Your task to perform on an android device: change keyboard looks Image 0: 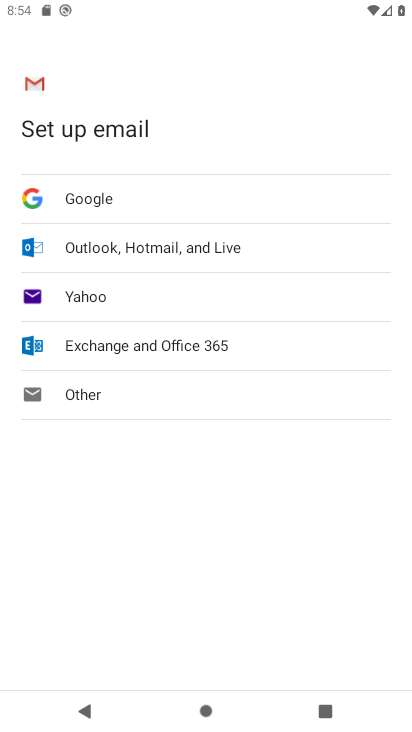
Step 0: press home button
Your task to perform on an android device: change keyboard looks Image 1: 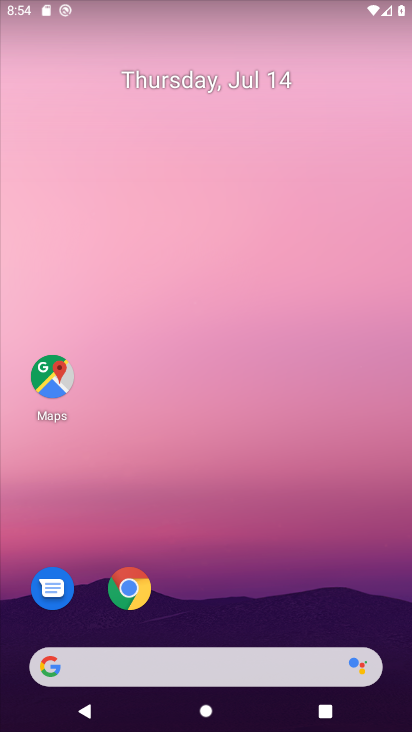
Step 1: drag from (274, 601) to (257, 76)
Your task to perform on an android device: change keyboard looks Image 2: 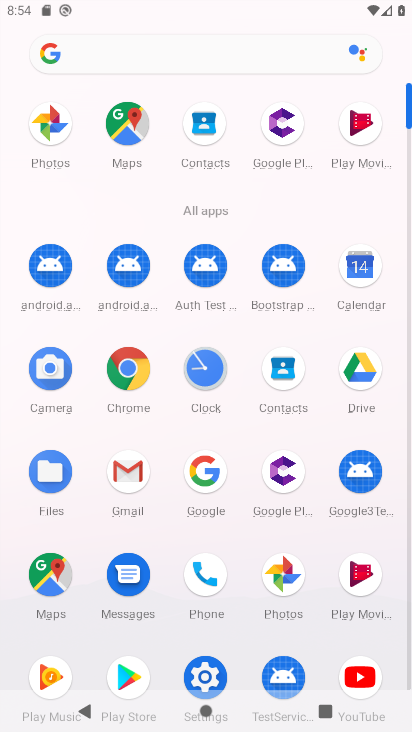
Step 2: click (209, 674)
Your task to perform on an android device: change keyboard looks Image 3: 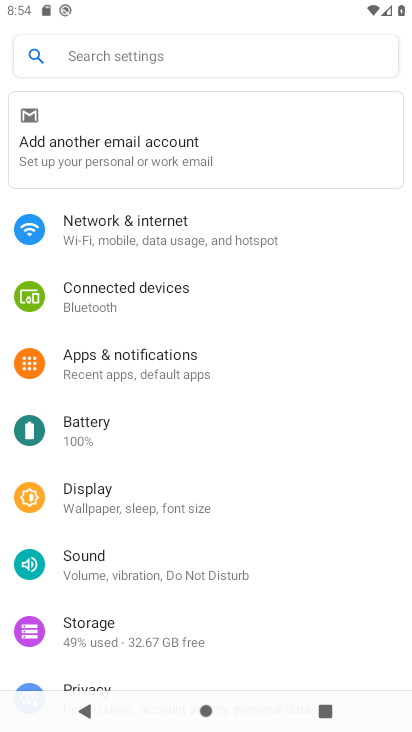
Step 3: drag from (244, 585) to (247, 253)
Your task to perform on an android device: change keyboard looks Image 4: 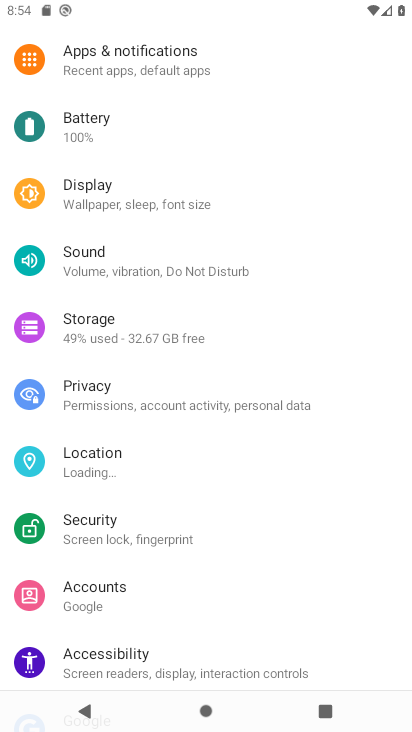
Step 4: drag from (153, 560) to (174, 200)
Your task to perform on an android device: change keyboard looks Image 5: 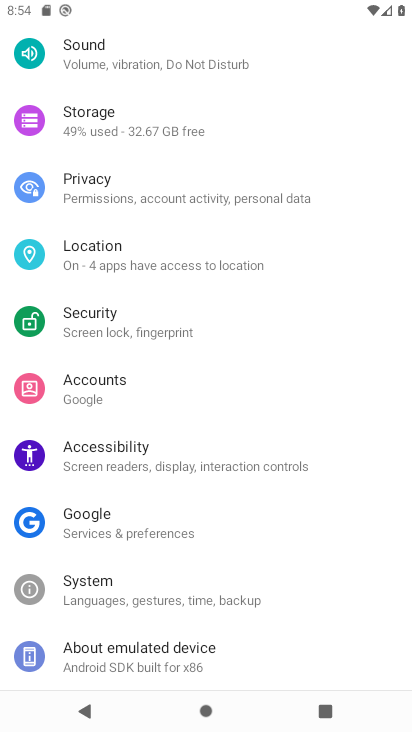
Step 5: click (68, 588)
Your task to perform on an android device: change keyboard looks Image 6: 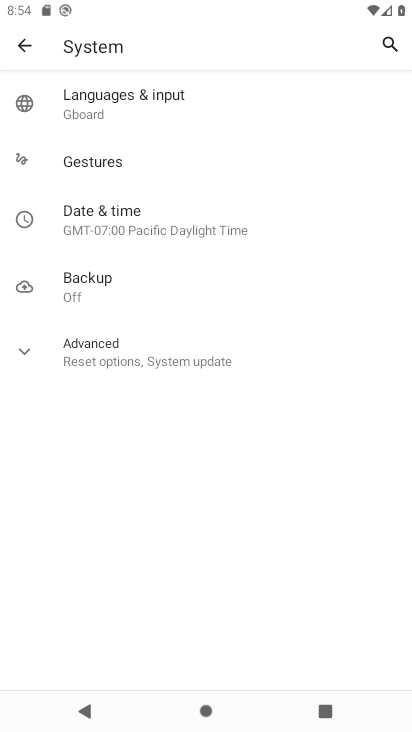
Step 6: click (88, 98)
Your task to perform on an android device: change keyboard looks Image 7: 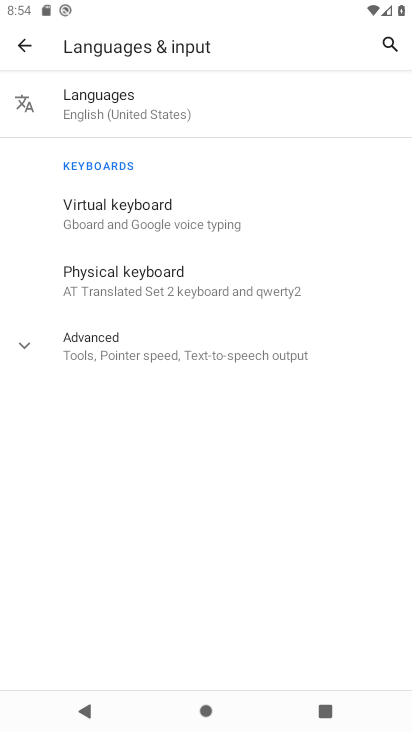
Step 7: click (113, 205)
Your task to perform on an android device: change keyboard looks Image 8: 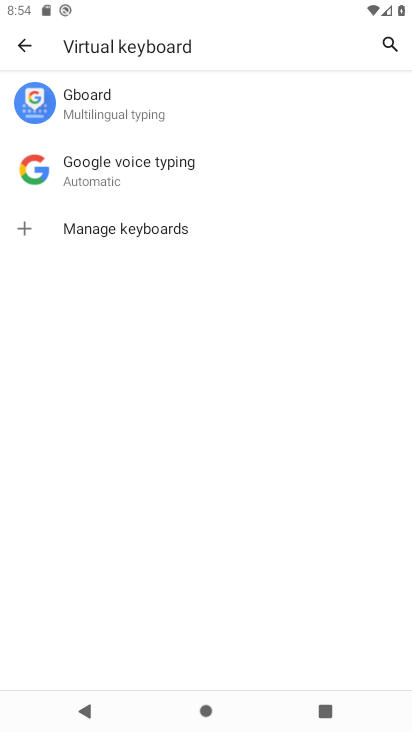
Step 8: click (74, 103)
Your task to perform on an android device: change keyboard looks Image 9: 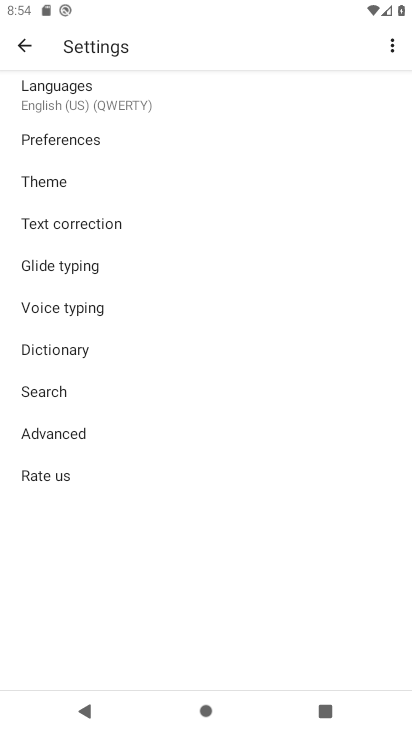
Step 9: click (51, 171)
Your task to perform on an android device: change keyboard looks Image 10: 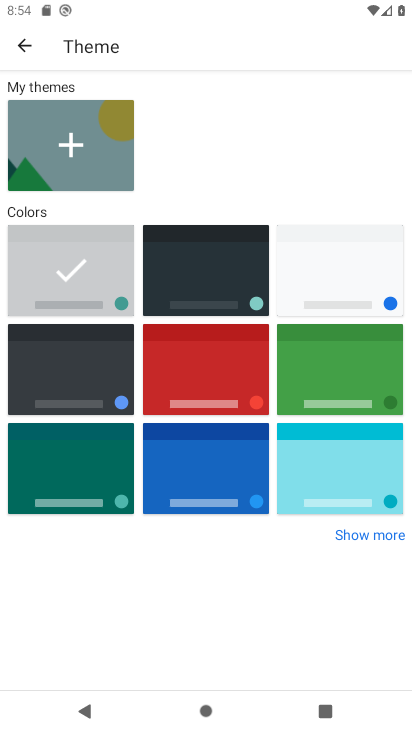
Step 10: click (307, 269)
Your task to perform on an android device: change keyboard looks Image 11: 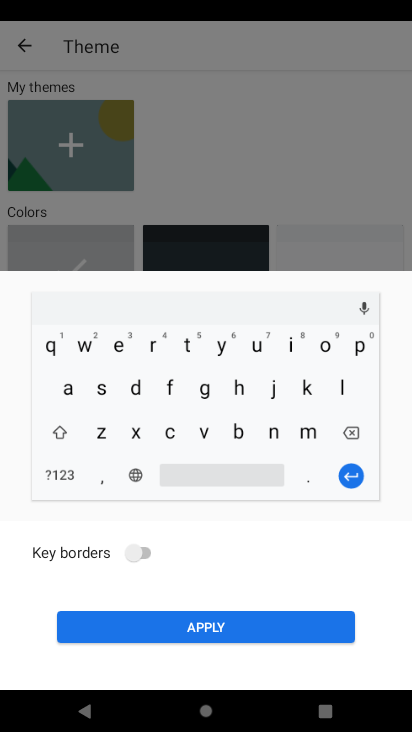
Step 11: click (133, 547)
Your task to perform on an android device: change keyboard looks Image 12: 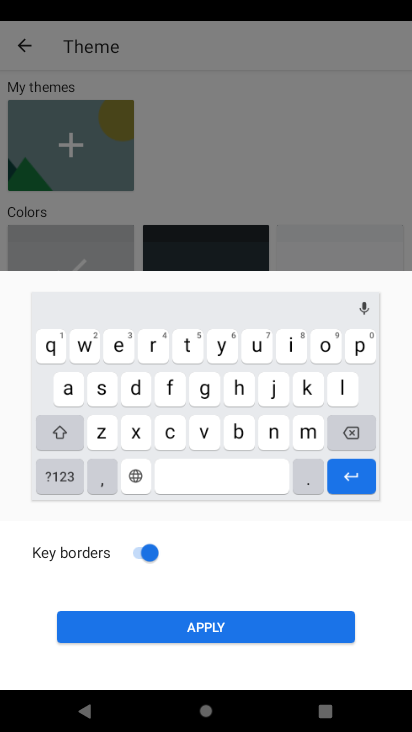
Step 12: click (199, 614)
Your task to perform on an android device: change keyboard looks Image 13: 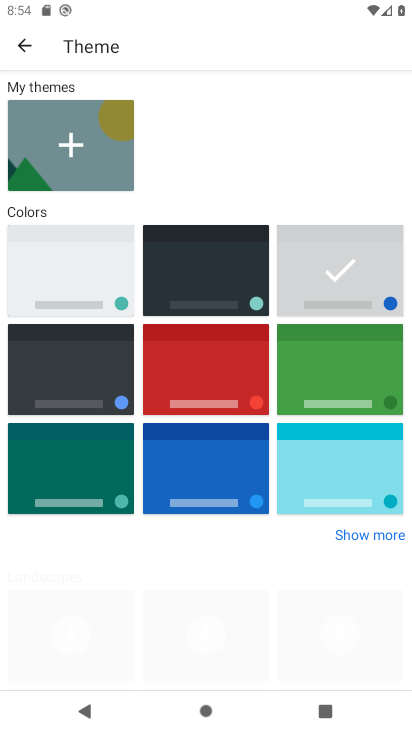
Step 13: task complete